Your task to perform on an android device: Open the phone app and click the voicemail tab. Image 0: 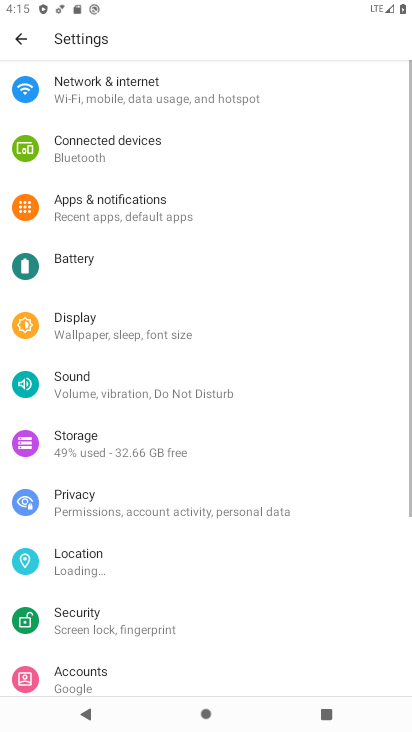
Step 0: drag from (317, 590) to (281, 203)
Your task to perform on an android device: Open the phone app and click the voicemail tab. Image 1: 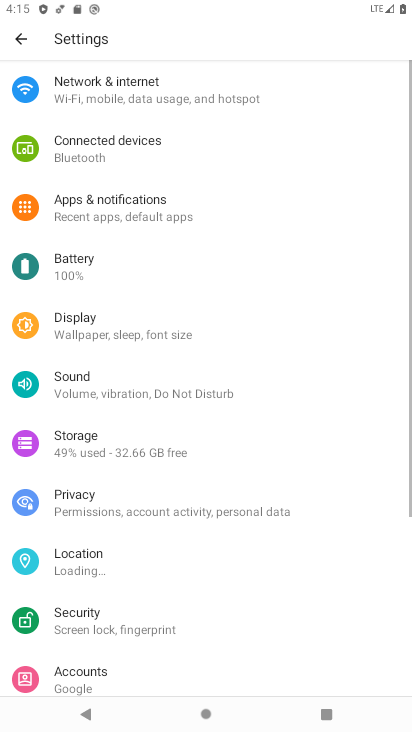
Step 1: press back button
Your task to perform on an android device: Open the phone app and click the voicemail tab. Image 2: 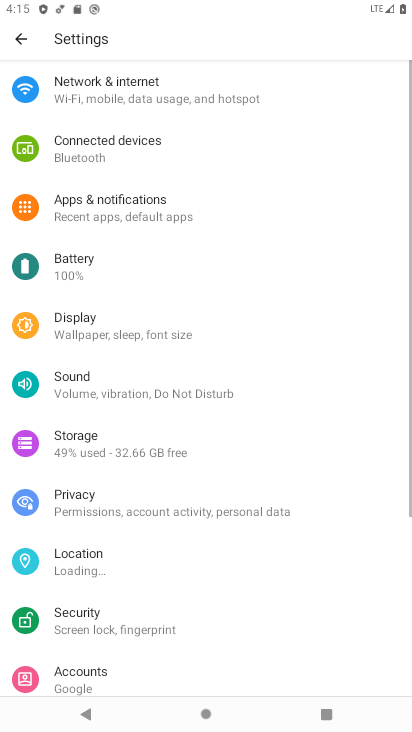
Step 2: press back button
Your task to perform on an android device: Open the phone app and click the voicemail tab. Image 3: 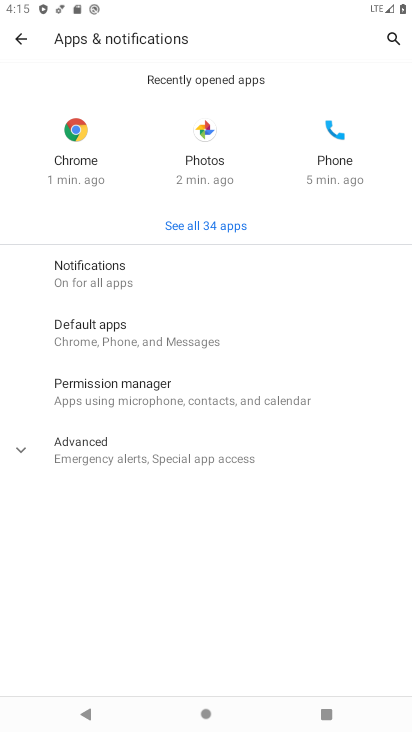
Step 3: press home button
Your task to perform on an android device: Open the phone app and click the voicemail tab. Image 4: 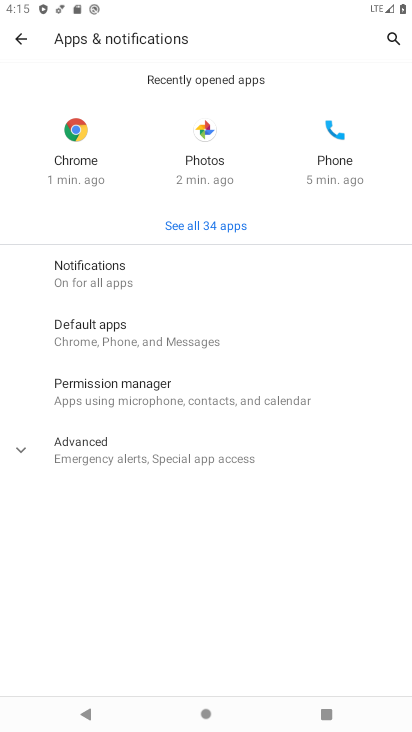
Step 4: press home button
Your task to perform on an android device: Open the phone app and click the voicemail tab. Image 5: 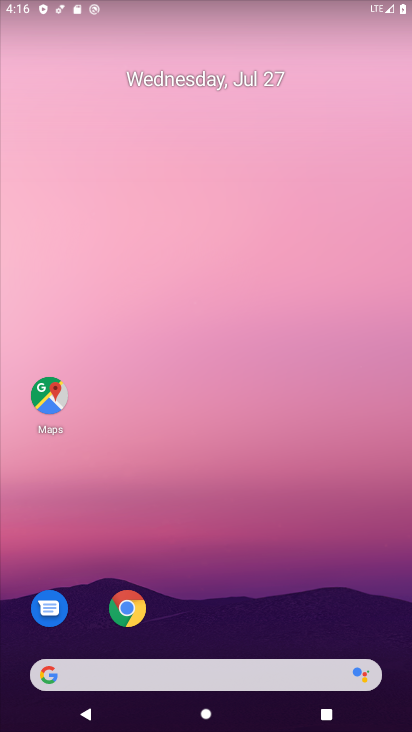
Step 5: drag from (201, 377) to (188, 172)
Your task to perform on an android device: Open the phone app and click the voicemail tab. Image 6: 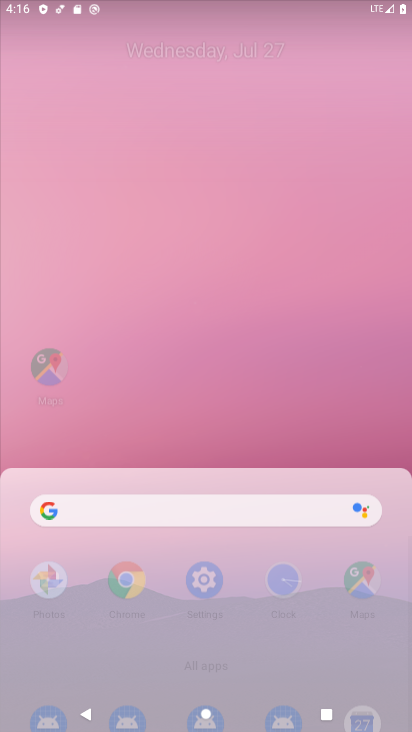
Step 6: drag from (277, 579) to (303, 158)
Your task to perform on an android device: Open the phone app and click the voicemail tab. Image 7: 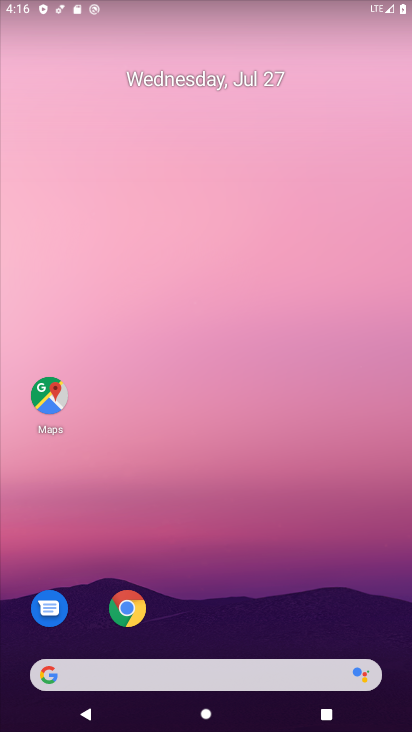
Step 7: drag from (237, 532) to (237, 142)
Your task to perform on an android device: Open the phone app and click the voicemail tab. Image 8: 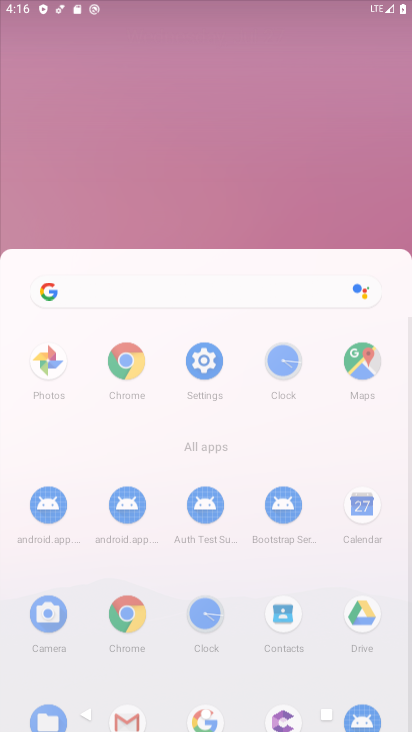
Step 8: drag from (247, 510) to (247, 121)
Your task to perform on an android device: Open the phone app and click the voicemail tab. Image 9: 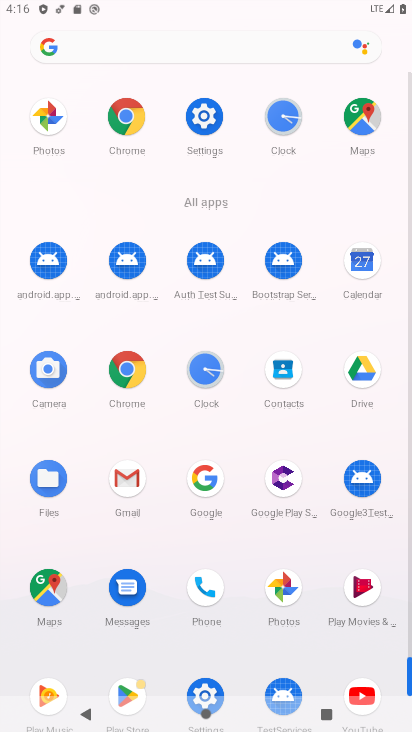
Step 9: click (220, 578)
Your task to perform on an android device: Open the phone app and click the voicemail tab. Image 10: 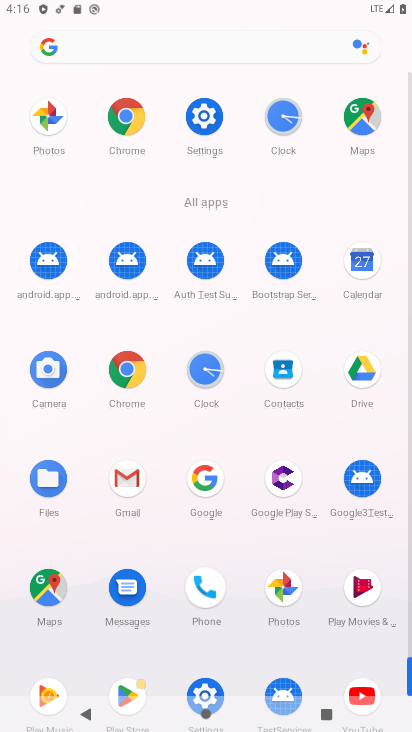
Step 10: click (208, 578)
Your task to perform on an android device: Open the phone app and click the voicemail tab. Image 11: 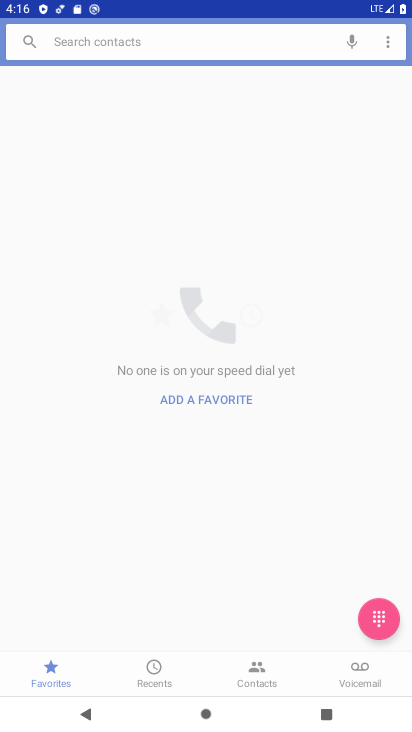
Step 11: click (208, 582)
Your task to perform on an android device: Open the phone app and click the voicemail tab. Image 12: 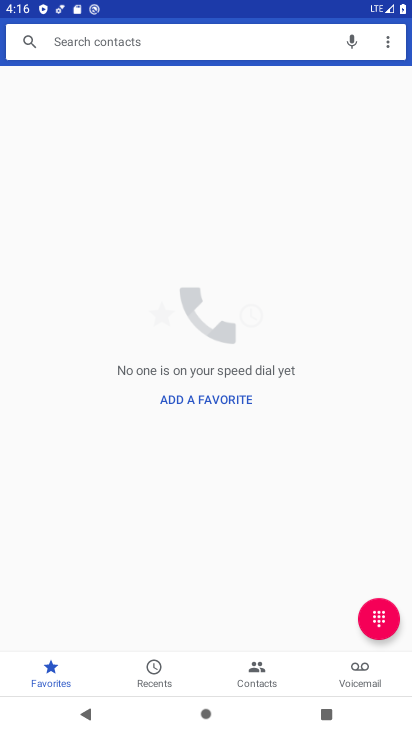
Step 12: click (208, 583)
Your task to perform on an android device: Open the phone app and click the voicemail tab. Image 13: 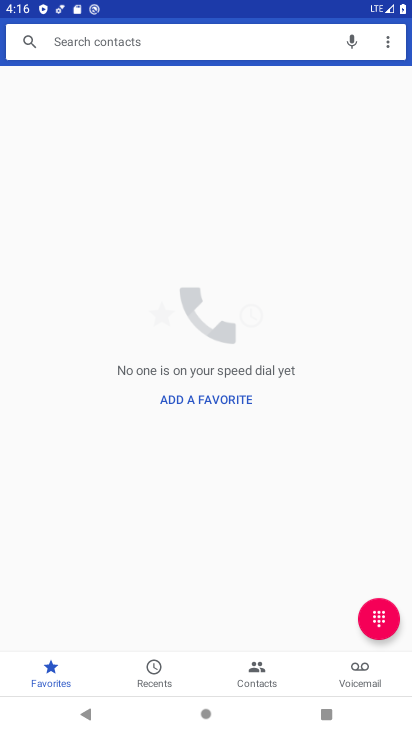
Step 13: click (351, 660)
Your task to perform on an android device: Open the phone app and click the voicemail tab. Image 14: 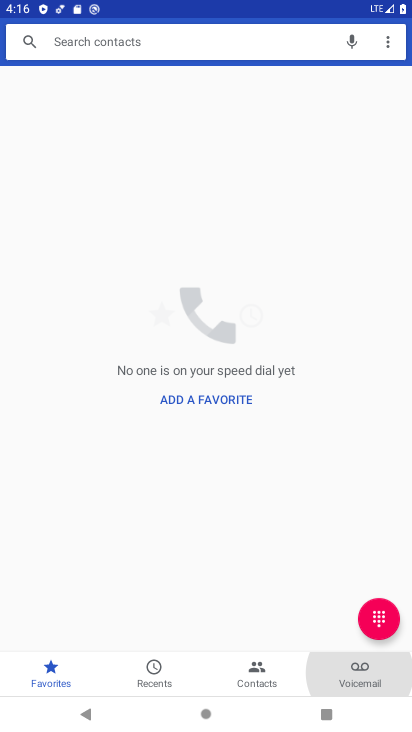
Step 14: click (353, 667)
Your task to perform on an android device: Open the phone app and click the voicemail tab. Image 15: 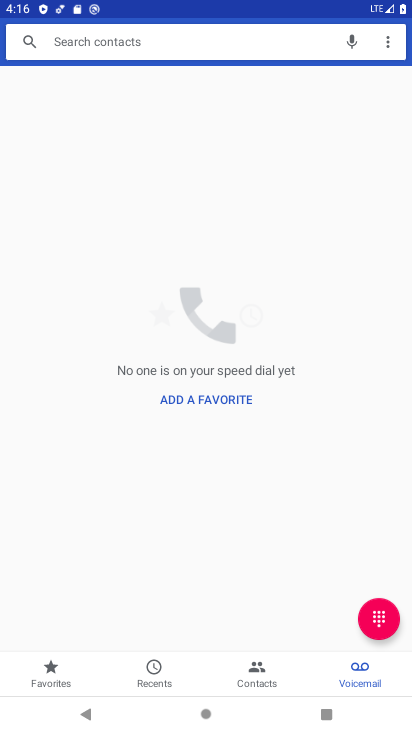
Step 15: click (354, 668)
Your task to perform on an android device: Open the phone app and click the voicemail tab. Image 16: 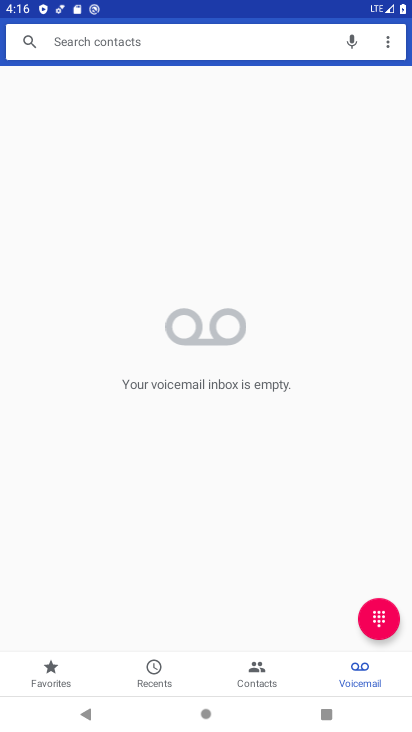
Step 16: task complete